Your task to perform on an android device: turn on bluetooth scan Image 0: 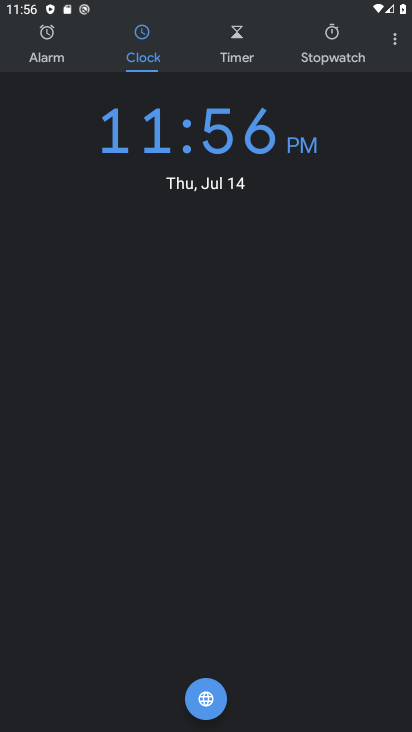
Step 0: press home button
Your task to perform on an android device: turn on bluetooth scan Image 1: 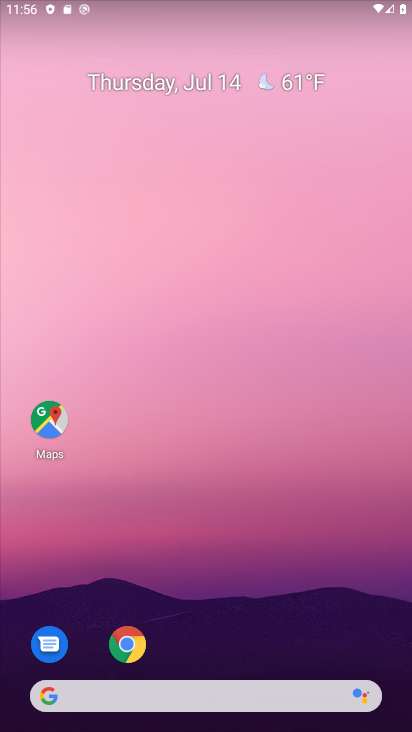
Step 1: drag from (226, 680) to (138, 22)
Your task to perform on an android device: turn on bluetooth scan Image 2: 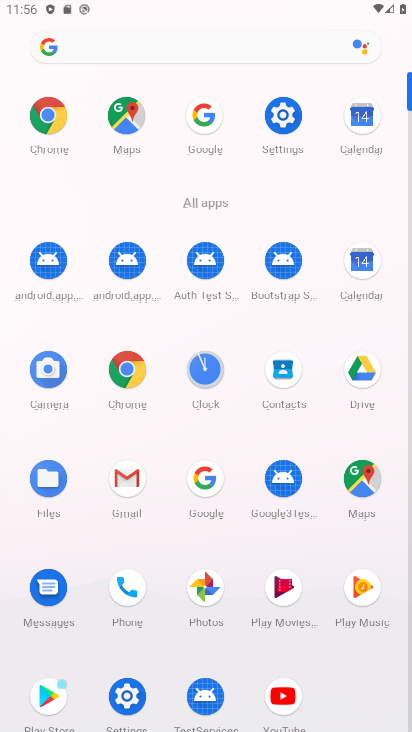
Step 2: click (129, 692)
Your task to perform on an android device: turn on bluetooth scan Image 3: 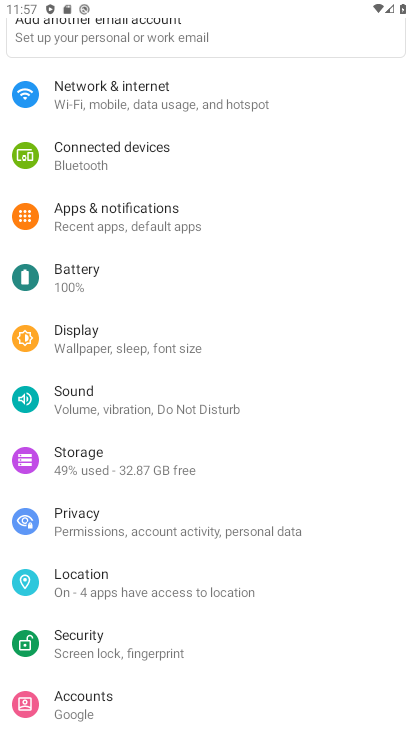
Step 3: drag from (145, 521) to (124, 289)
Your task to perform on an android device: turn on bluetooth scan Image 4: 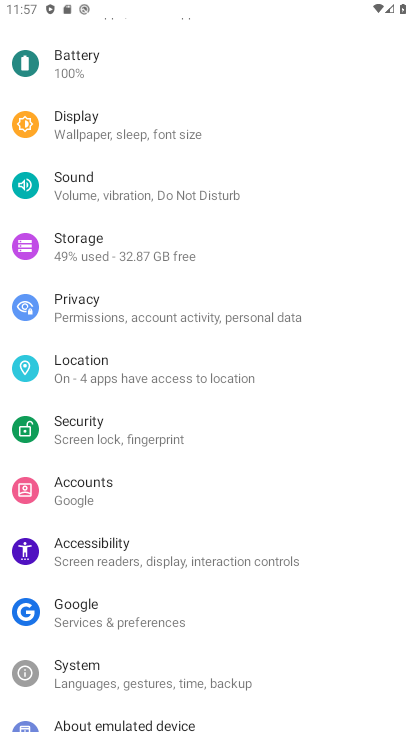
Step 4: click (98, 365)
Your task to perform on an android device: turn on bluetooth scan Image 5: 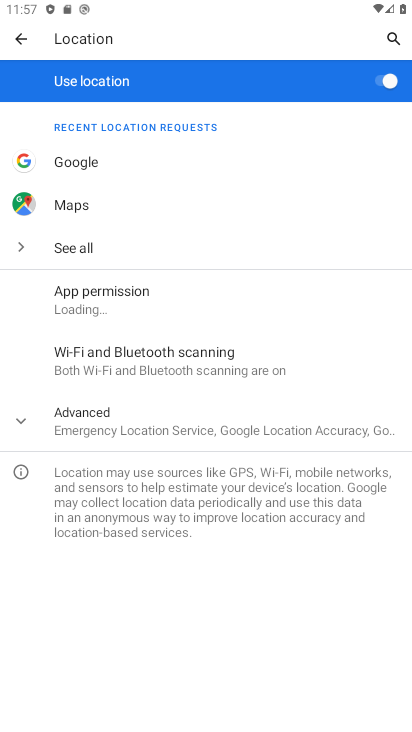
Step 5: click (127, 347)
Your task to perform on an android device: turn on bluetooth scan Image 6: 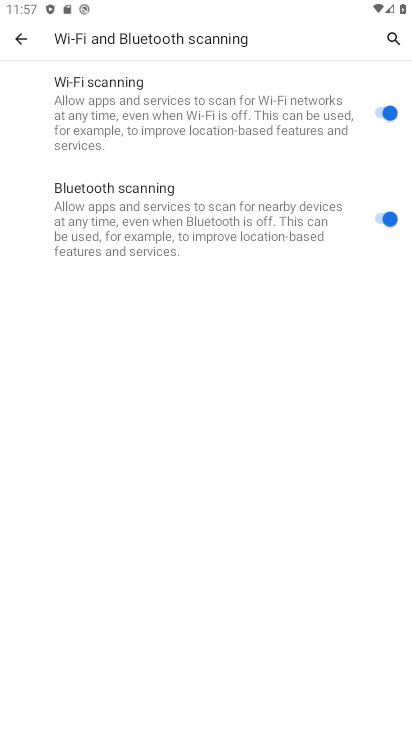
Step 6: task complete